Your task to perform on an android device: change text size in settings app Image 0: 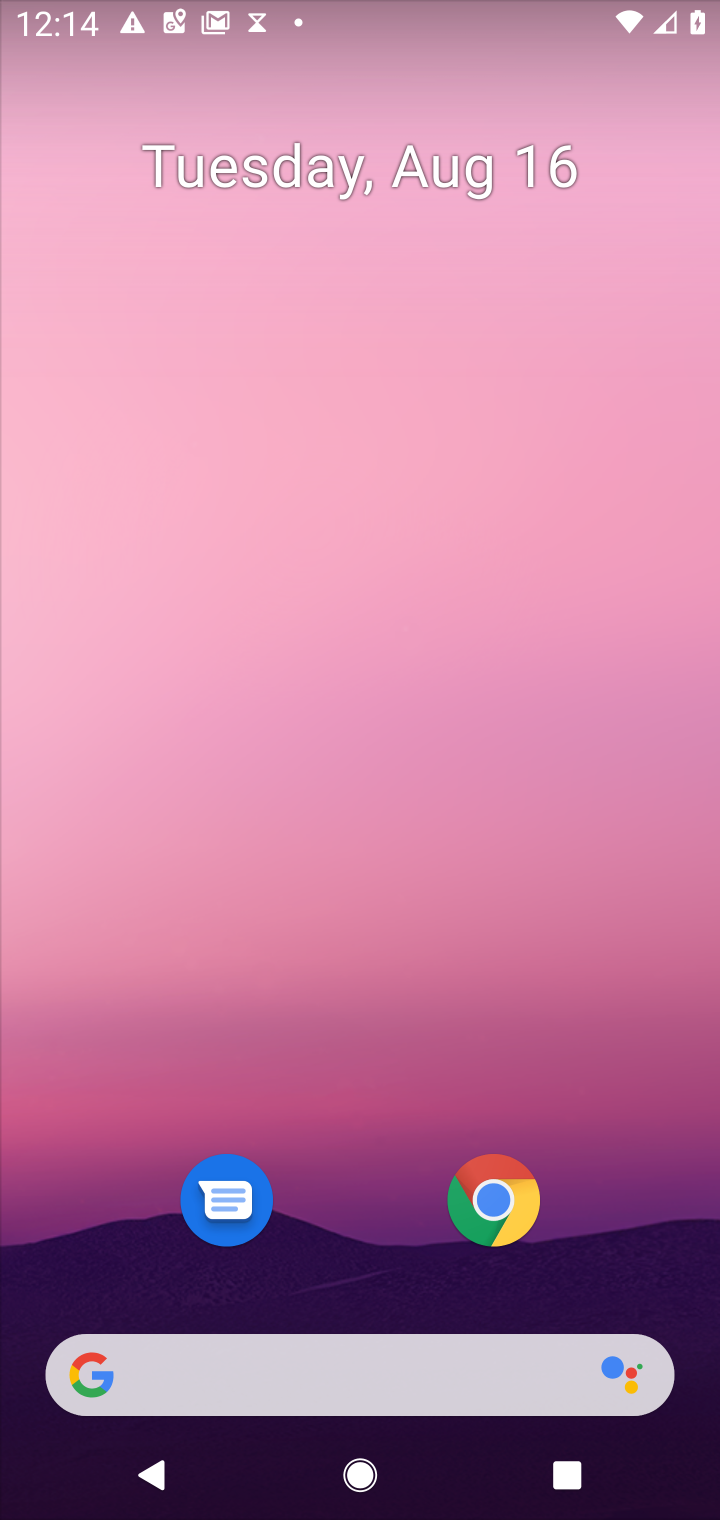
Step 0: drag from (358, 1218) to (381, 243)
Your task to perform on an android device: change text size in settings app Image 1: 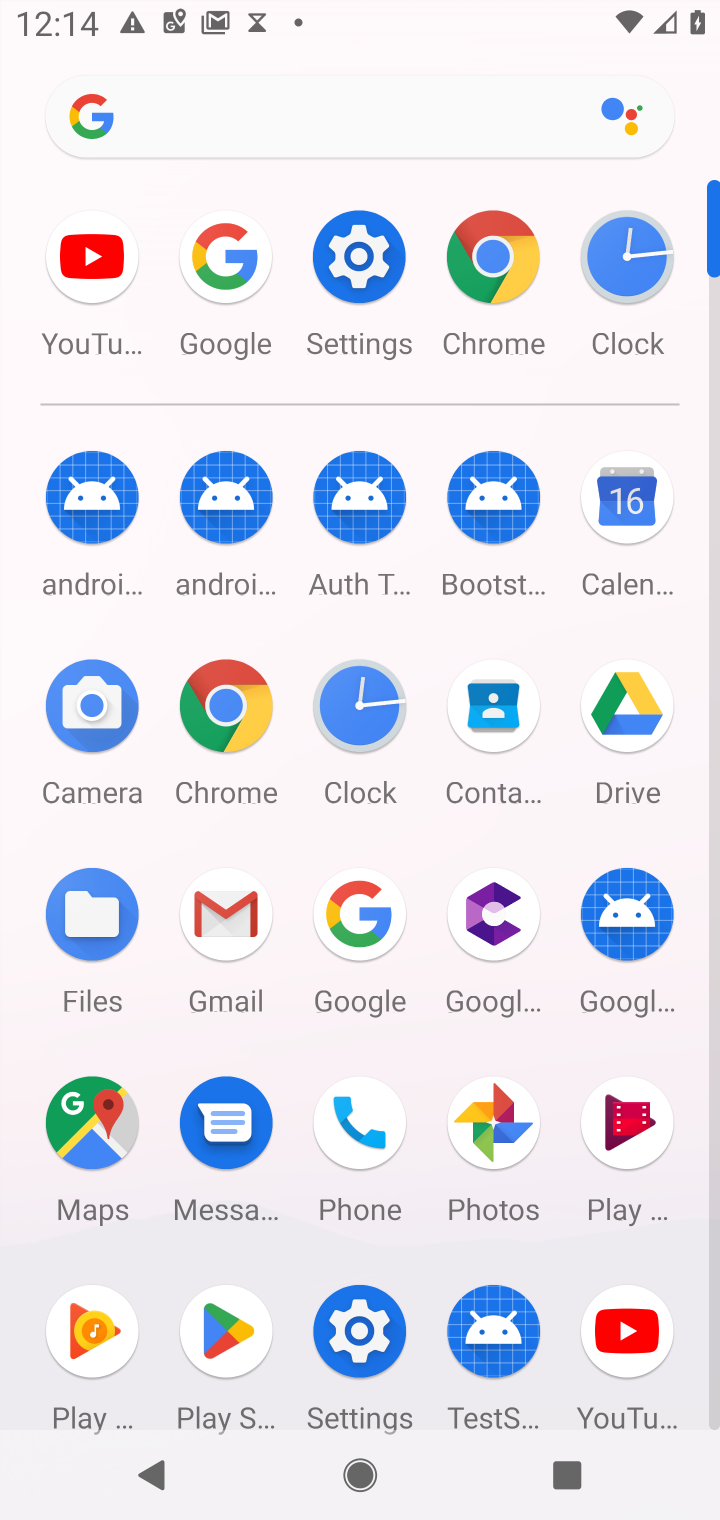
Step 1: click (354, 301)
Your task to perform on an android device: change text size in settings app Image 2: 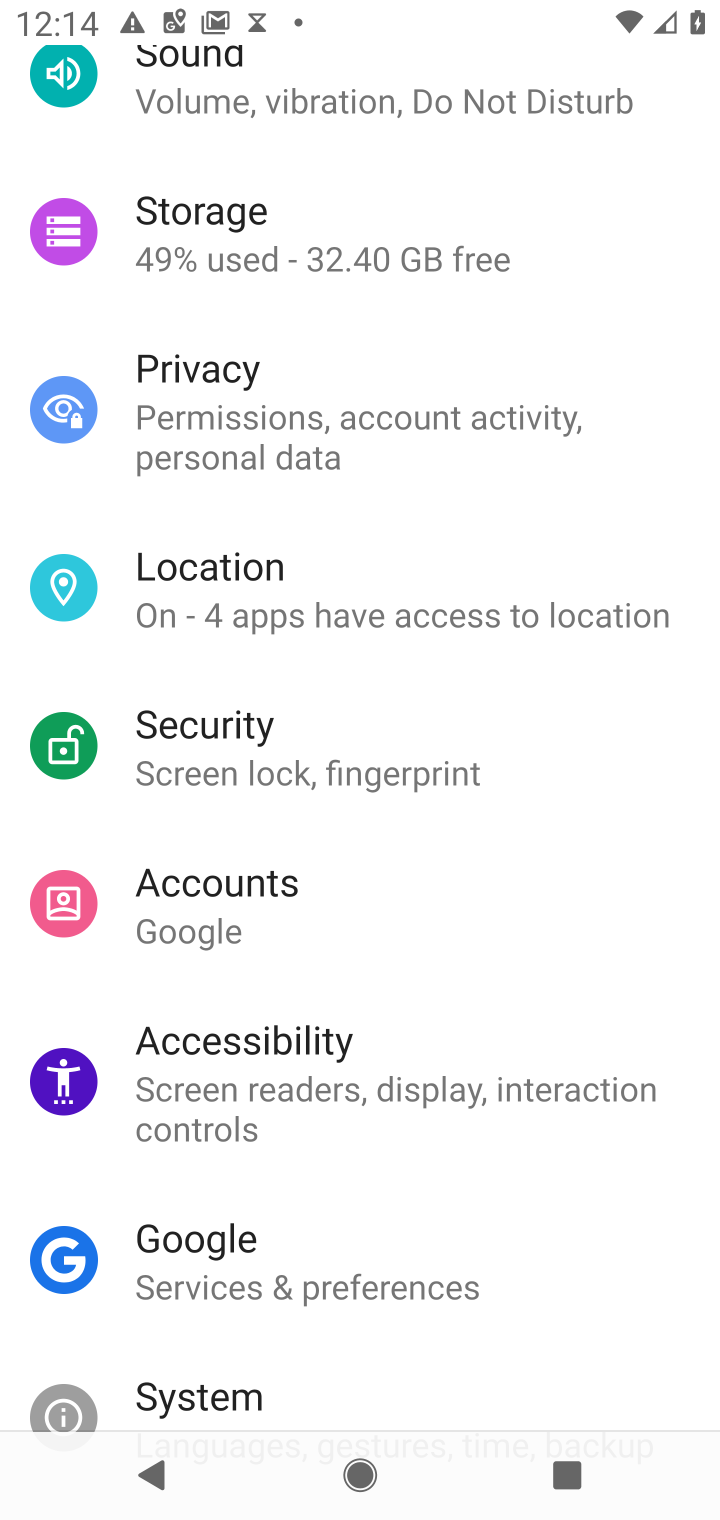
Step 2: drag from (271, 479) to (347, 1191)
Your task to perform on an android device: change text size in settings app Image 3: 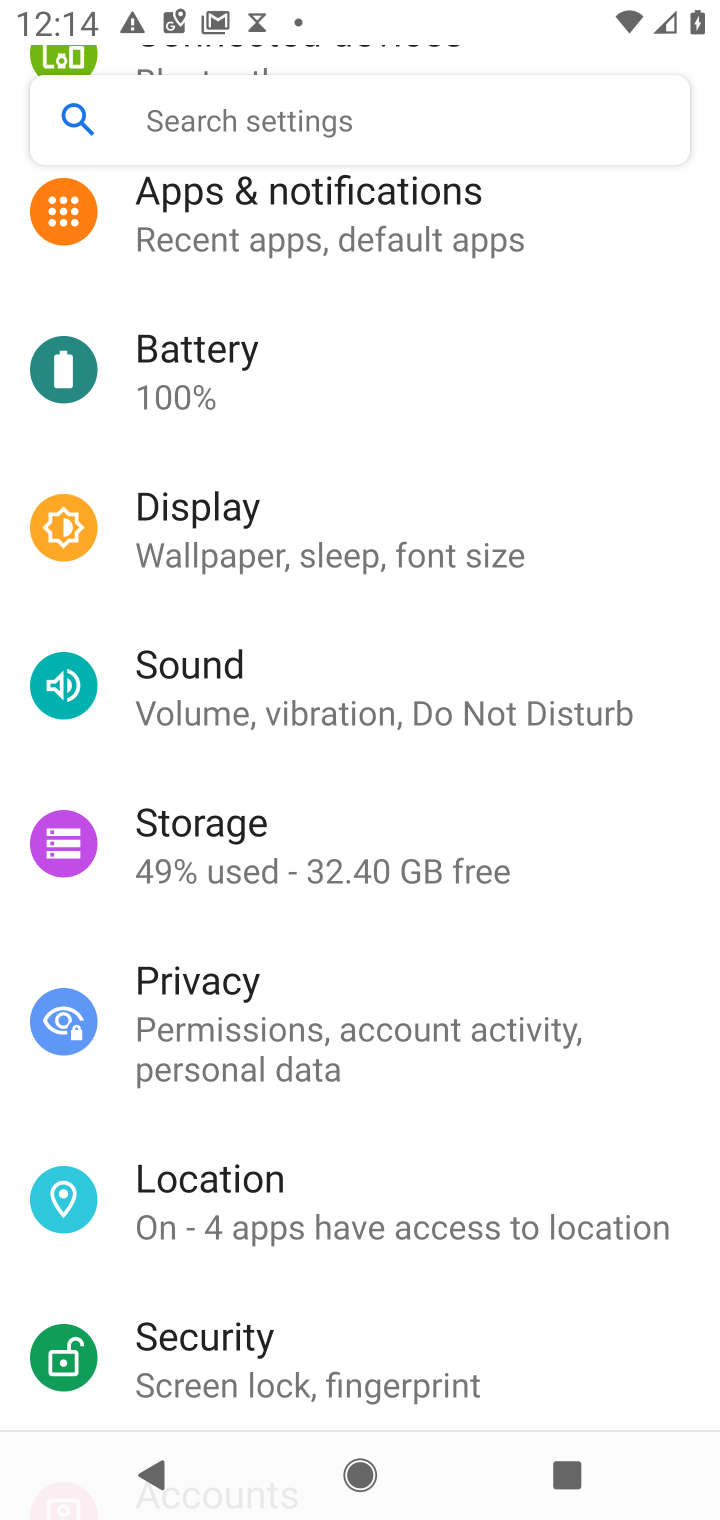
Step 3: click (286, 552)
Your task to perform on an android device: change text size in settings app Image 4: 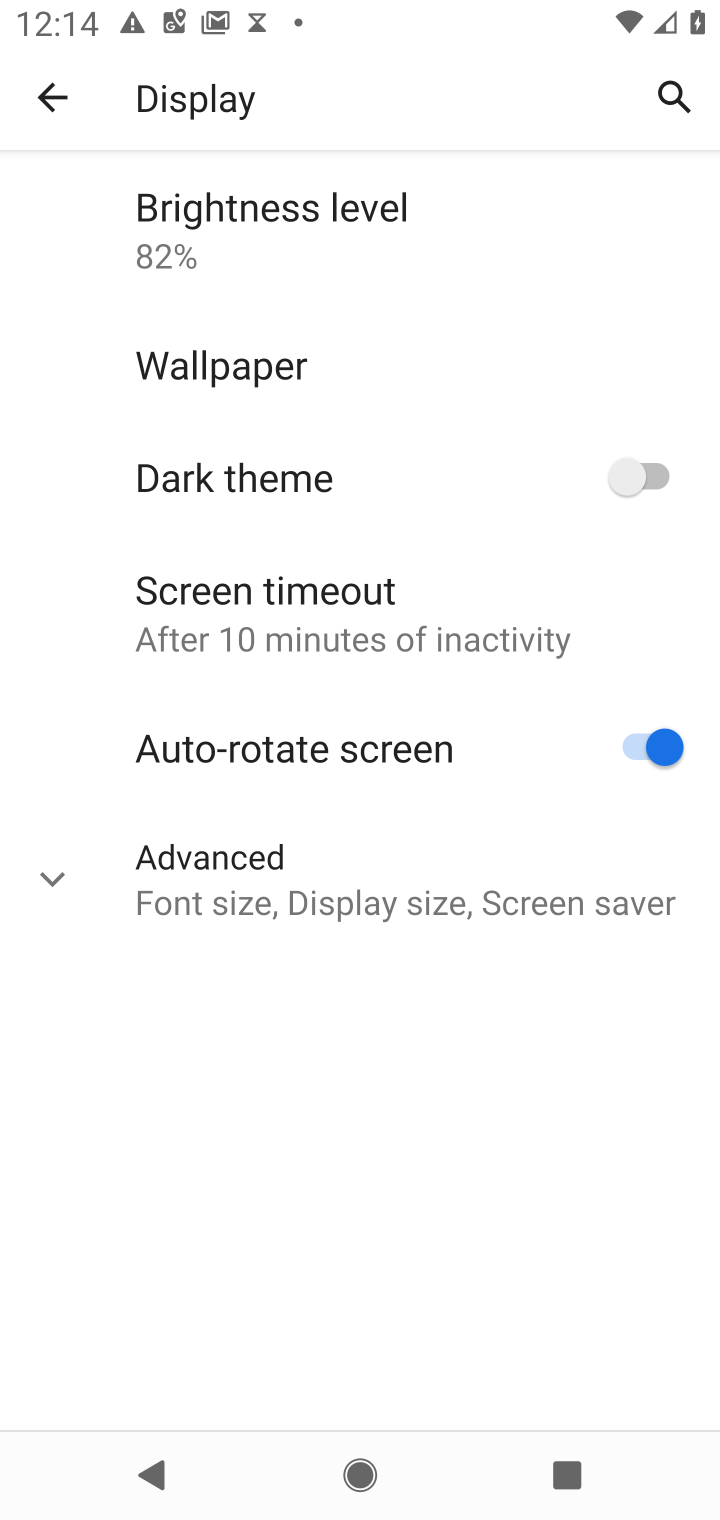
Step 4: click (225, 901)
Your task to perform on an android device: change text size in settings app Image 5: 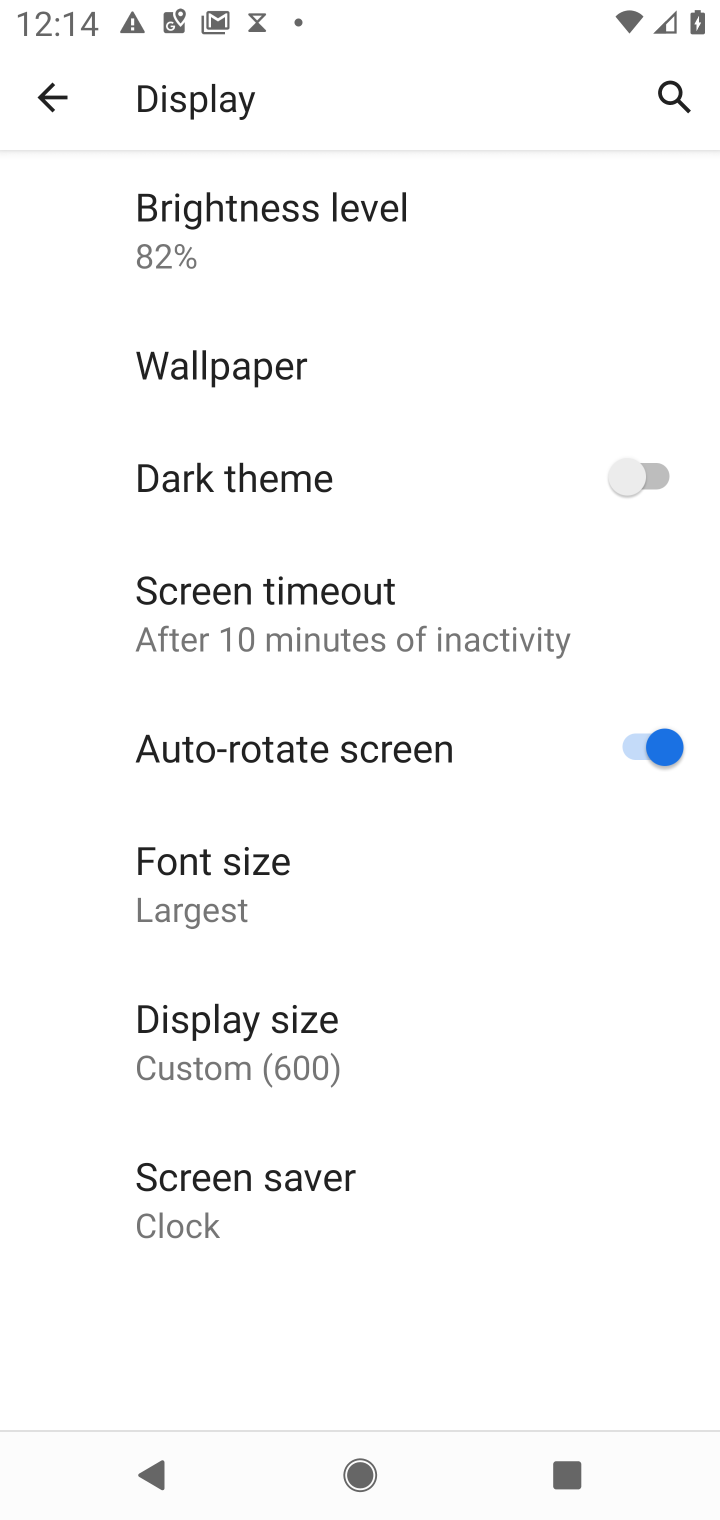
Step 5: click (218, 911)
Your task to perform on an android device: change text size in settings app Image 6: 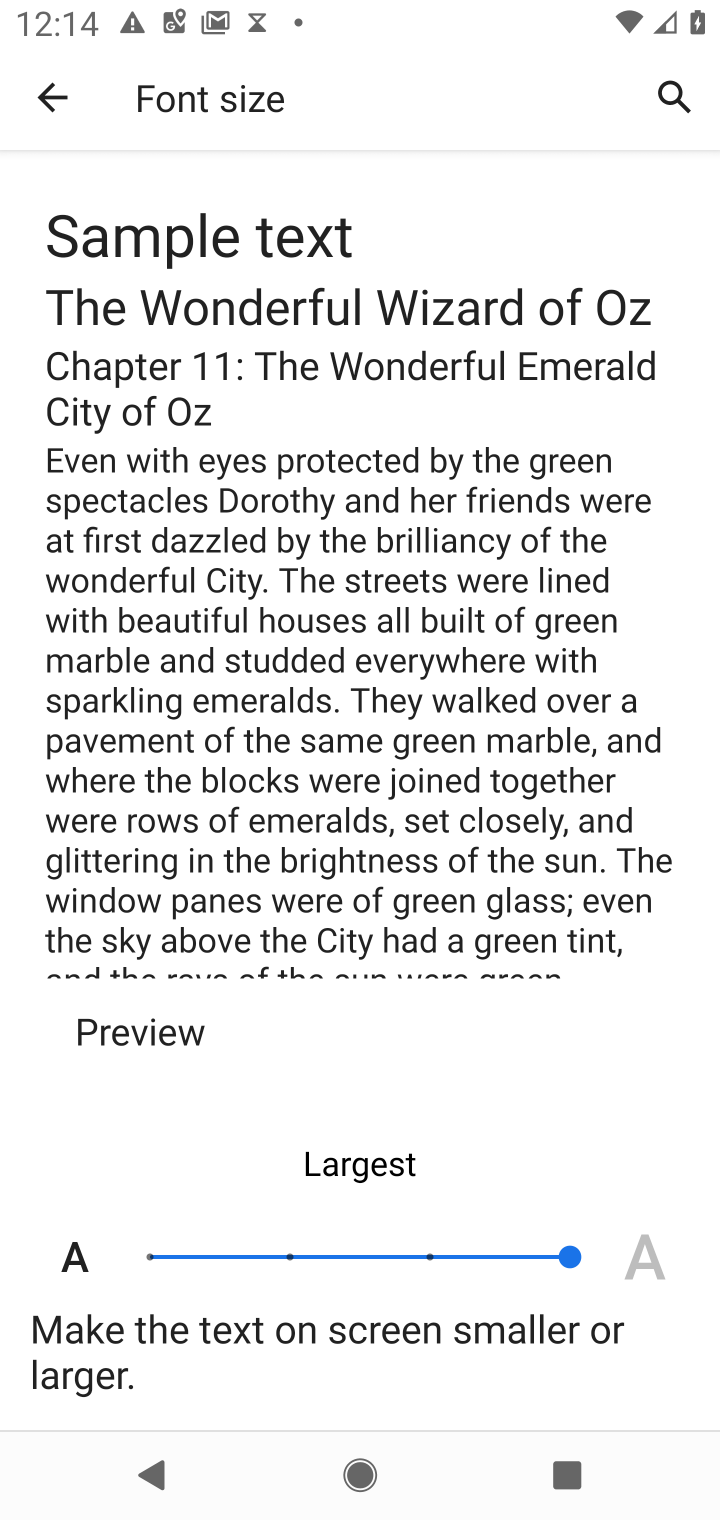
Step 6: click (410, 1254)
Your task to perform on an android device: change text size in settings app Image 7: 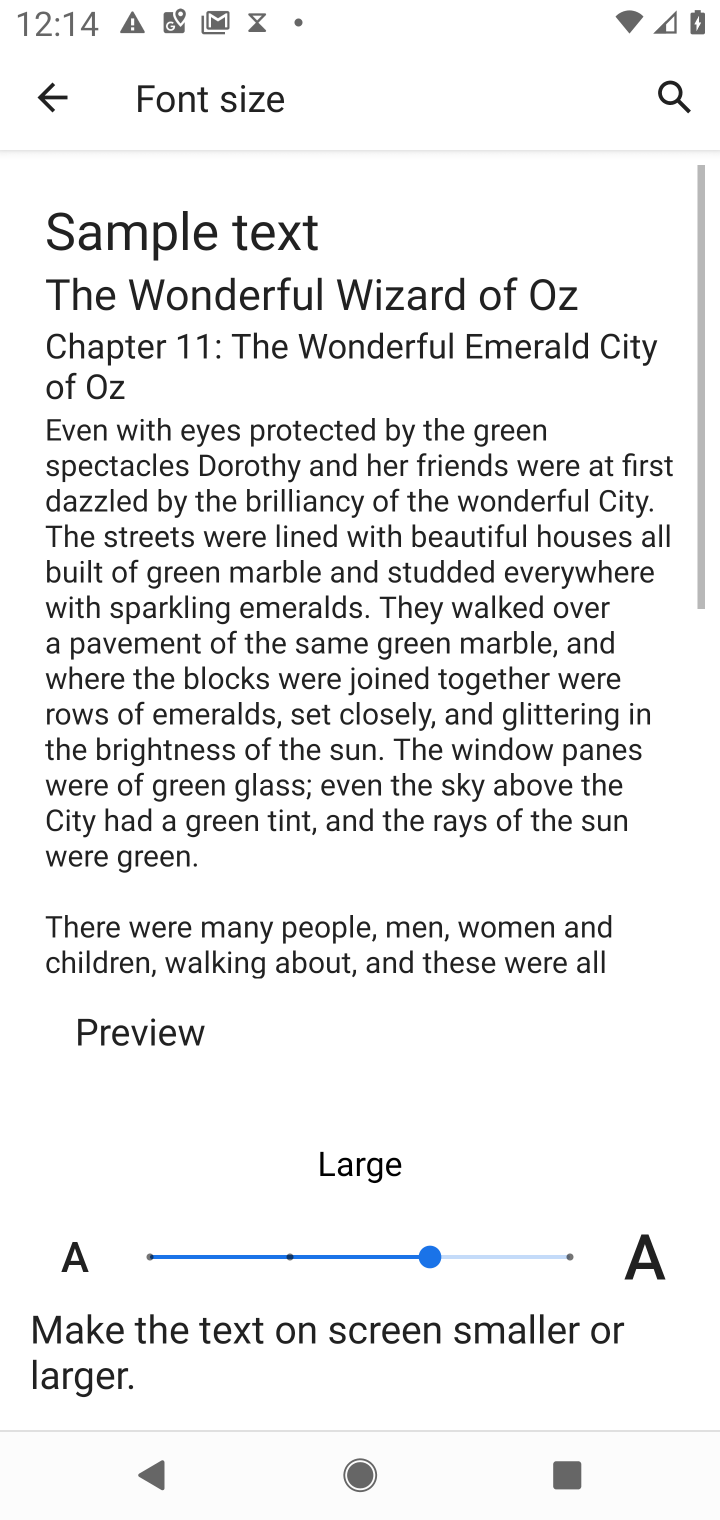
Step 7: task complete